Your task to perform on an android device: Go to Android settings Image 0: 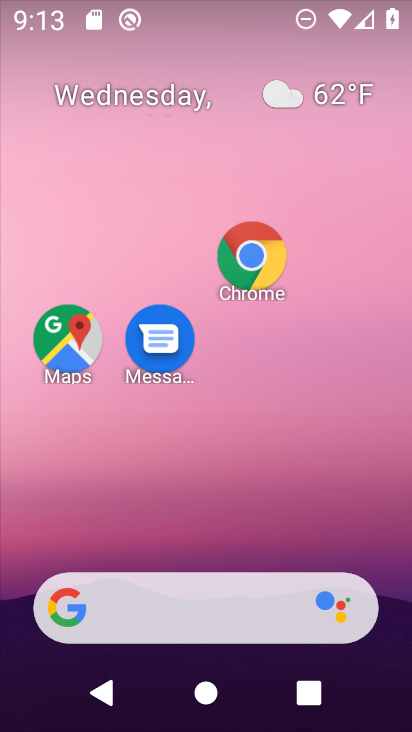
Step 0: drag from (275, 373) to (243, 74)
Your task to perform on an android device: Go to Android settings Image 1: 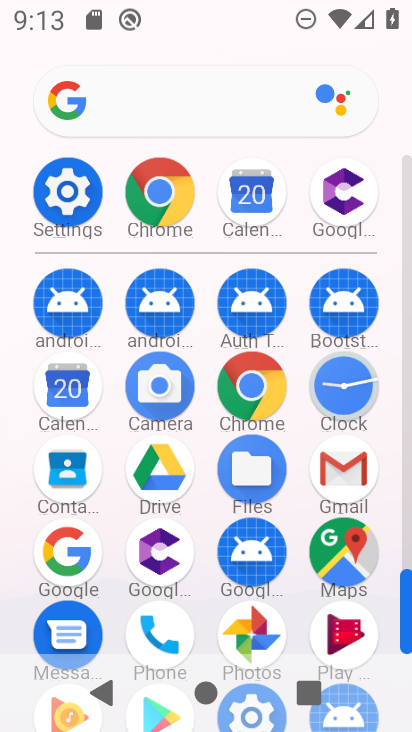
Step 1: click (64, 191)
Your task to perform on an android device: Go to Android settings Image 2: 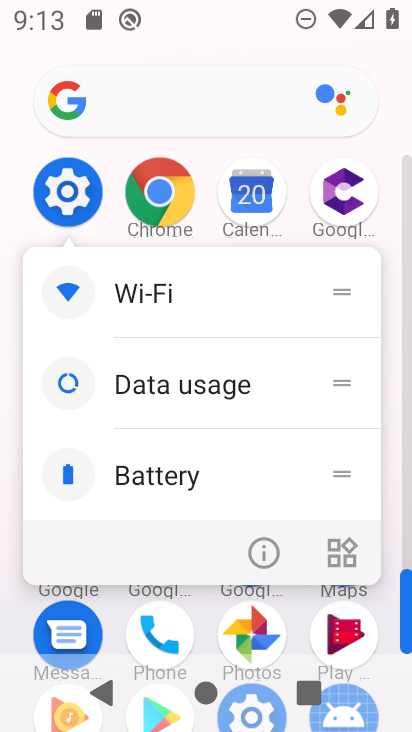
Step 2: click (65, 185)
Your task to perform on an android device: Go to Android settings Image 3: 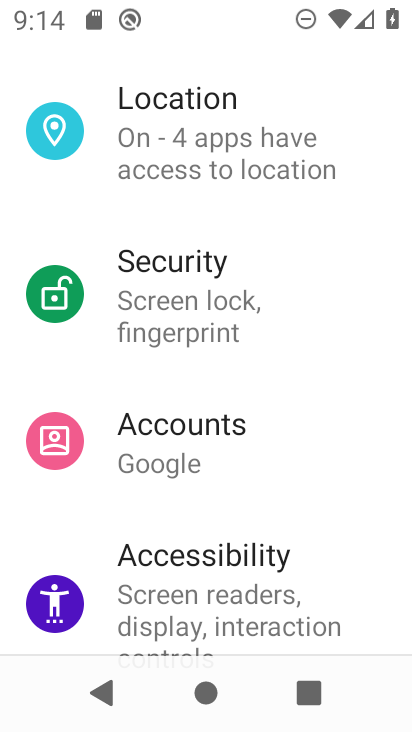
Step 3: task complete